Your task to perform on an android device: open app "Skype" (install if not already installed) Image 0: 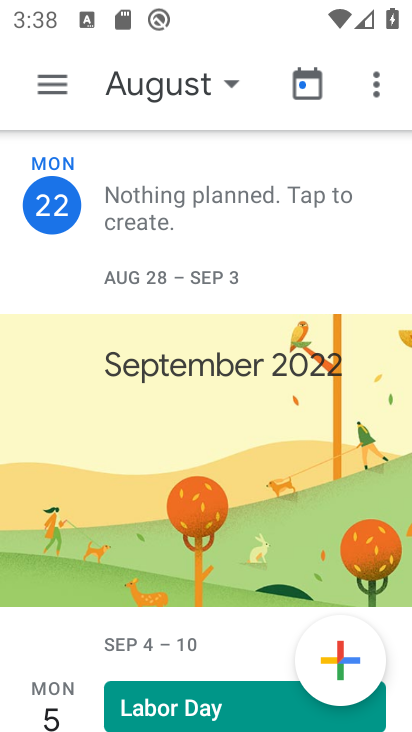
Step 0: press home button
Your task to perform on an android device: open app "Skype" (install if not already installed) Image 1: 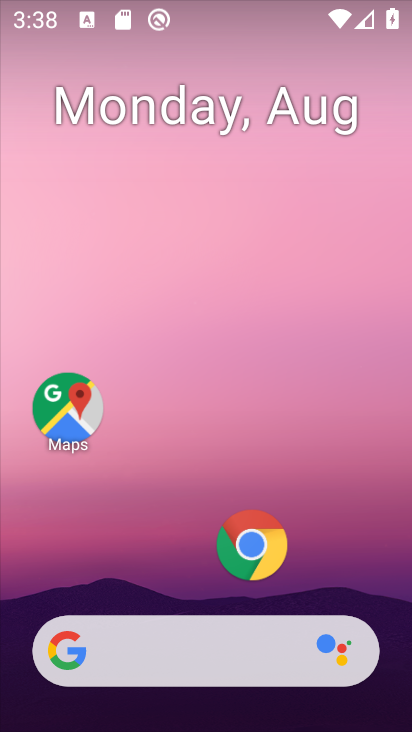
Step 1: drag from (122, 572) to (189, 13)
Your task to perform on an android device: open app "Skype" (install if not already installed) Image 2: 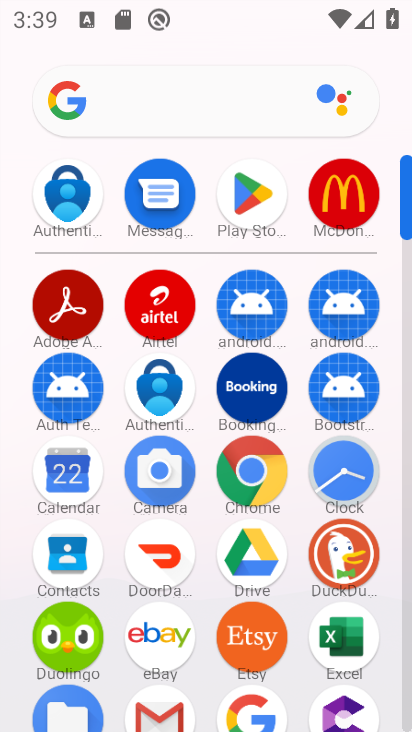
Step 2: click (250, 189)
Your task to perform on an android device: open app "Skype" (install if not already installed) Image 3: 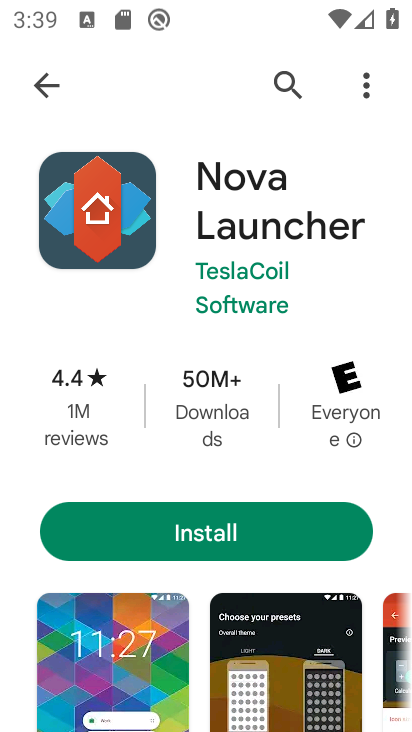
Step 3: click (280, 84)
Your task to perform on an android device: open app "Skype" (install if not already installed) Image 4: 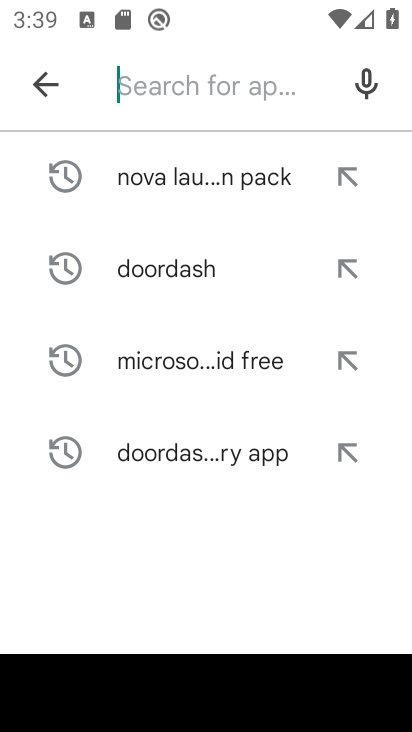
Step 4: click (183, 77)
Your task to perform on an android device: open app "Skype" (install if not already installed) Image 5: 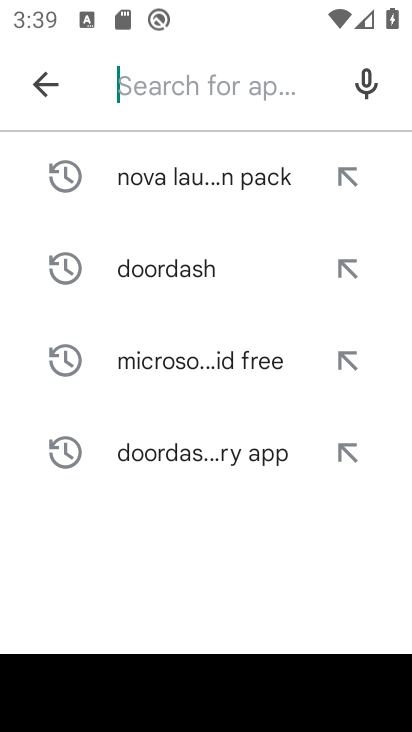
Step 5: click (165, 88)
Your task to perform on an android device: open app "Skype" (install if not already installed) Image 6: 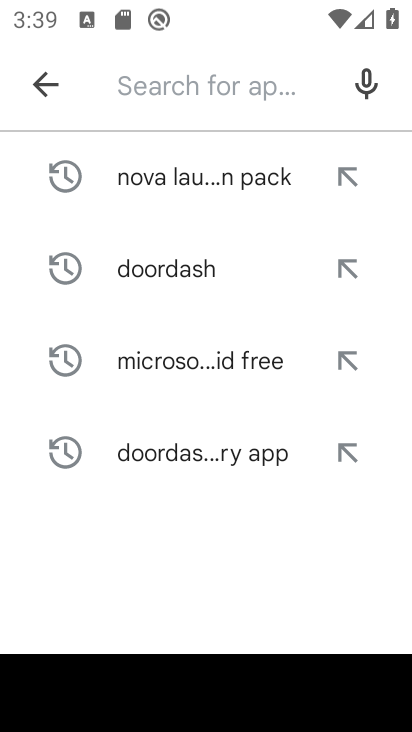
Step 6: type "Skype"
Your task to perform on an android device: open app "Skype" (install if not already installed) Image 7: 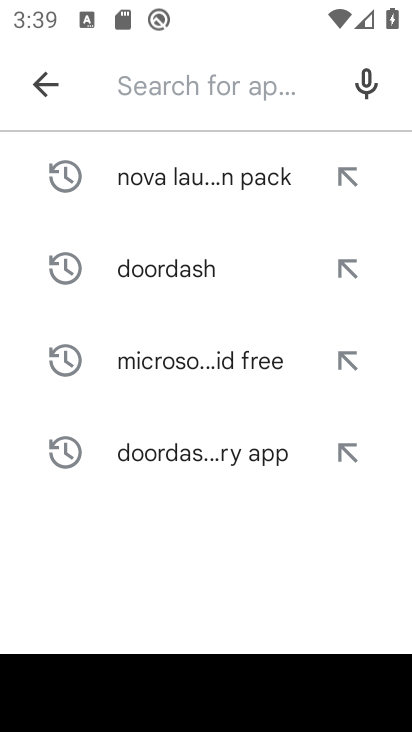
Step 7: click (201, 578)
Your task to perform on an android device: open app "Skype" (install if not already installed) Image 8: 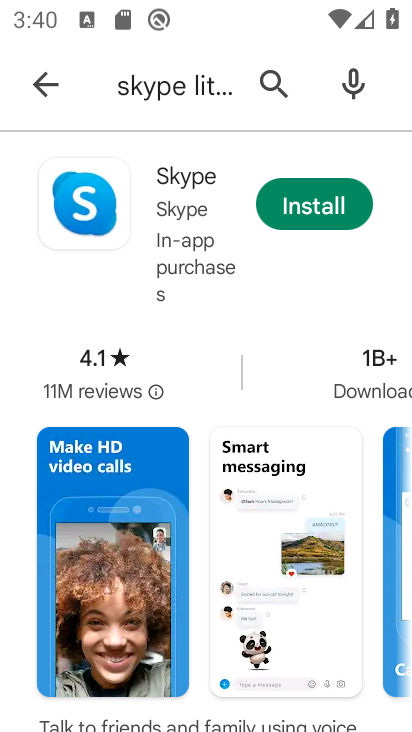
Step 8: click (300, 213)
Your task to perform on an android device: open app "Skype" (install if not already installed) Image 9: 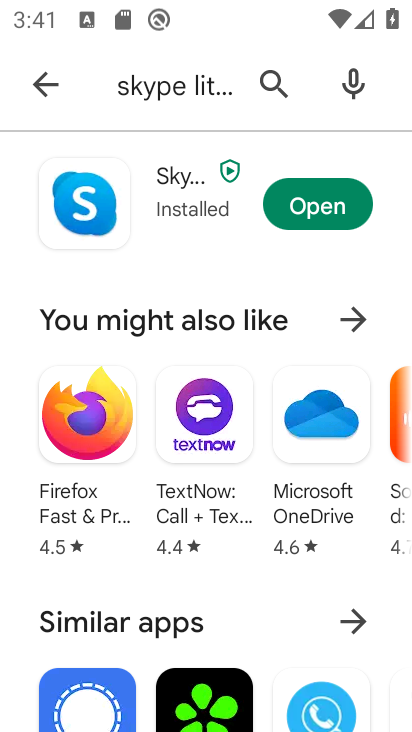
Step 9: click (316, 218)
Your task to perform on an android device: open app "Skype" (install if not already installed) Image 10: 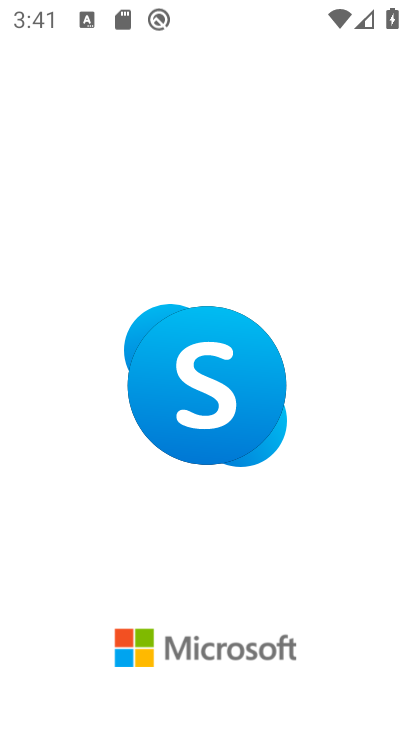
Step 10: task complete